Your task to perform on an android device: Search for the best websites on the internet Image 0: 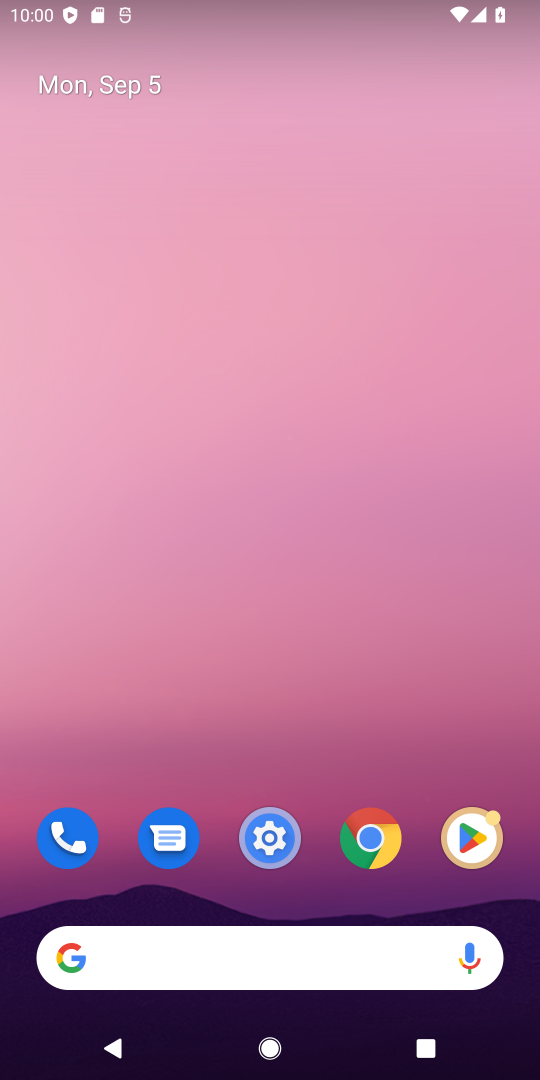
Step 0: click (347, 974)
Your task to perform on an android device: Search for the best websites on the internet Image 1: 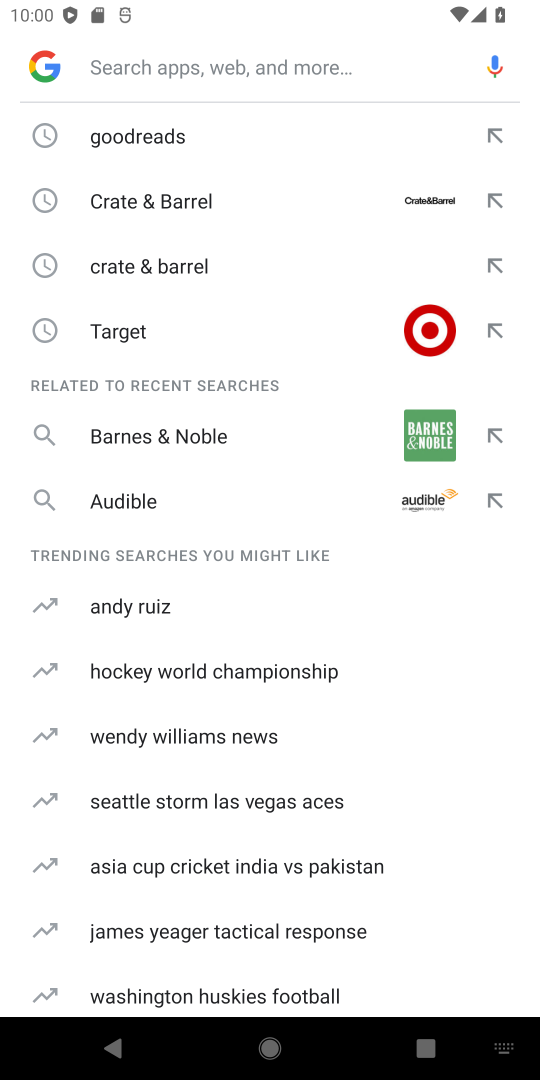
Step 1: type "best websites on the internet"
Your task to perform on an android device: Search for the best websites on the internet Image 2: 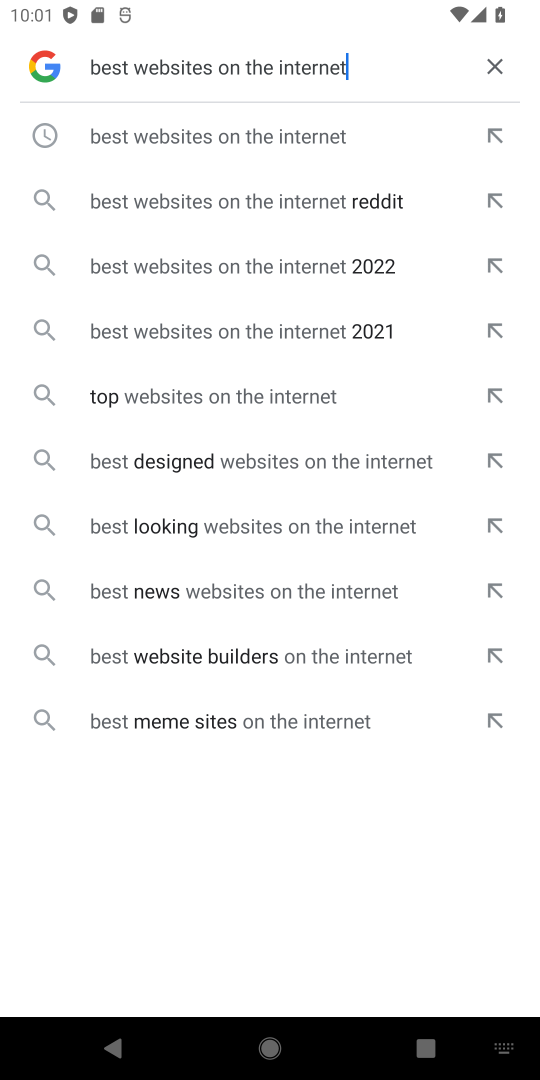
Step 2: click (241, 129)
Your task to perform on an android device: Search for the best websites on the internet Image 3: 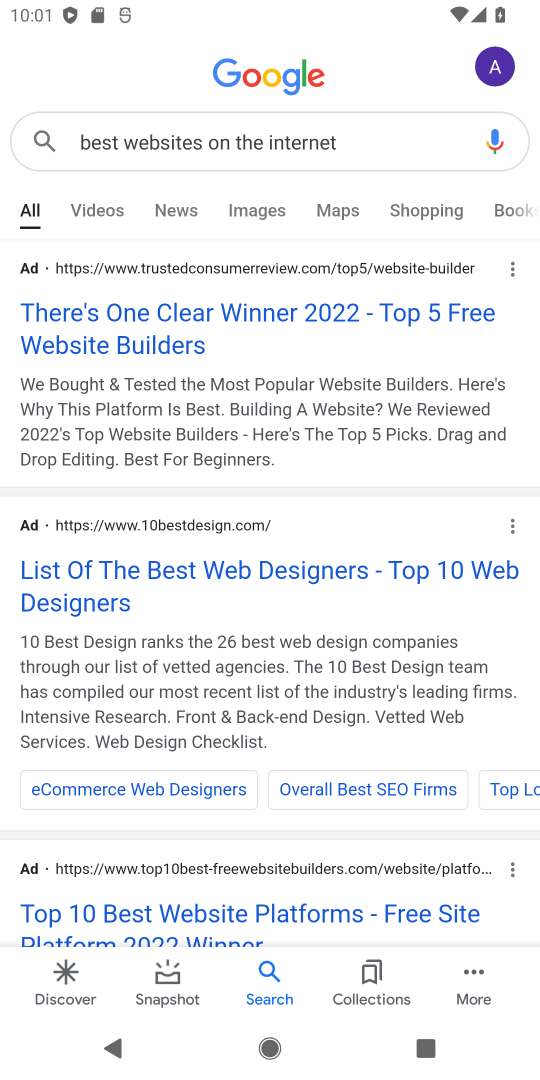
Step 3: drag from (286, 743) to (260, 370)
Your task to perform on an android device: Search for the best websites on the internet Image 4: 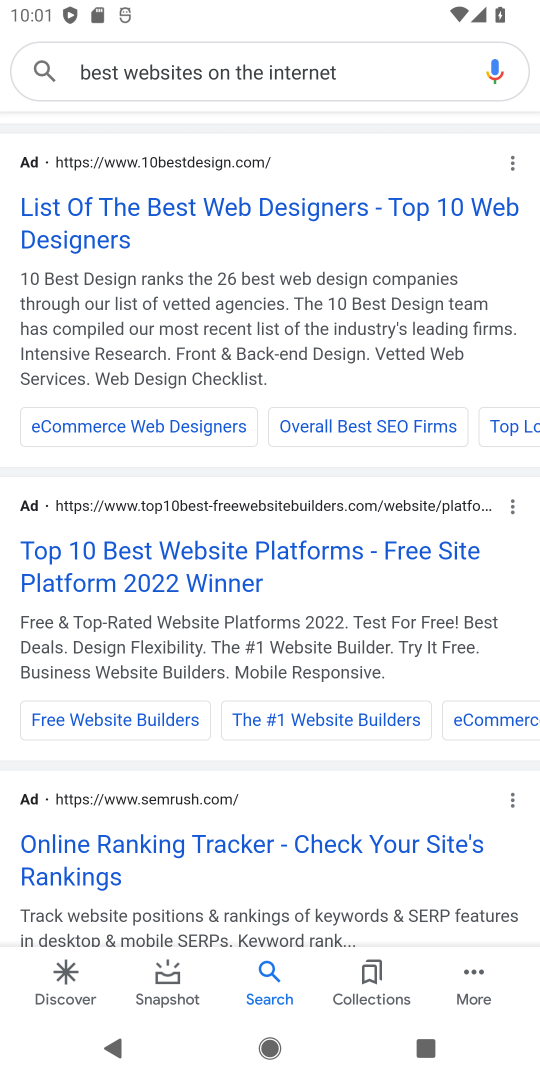
Step 4: drag from (334, 692) to (308, 397)
Your task to perform on an android device: Search for the best websites on the internet Image 5: 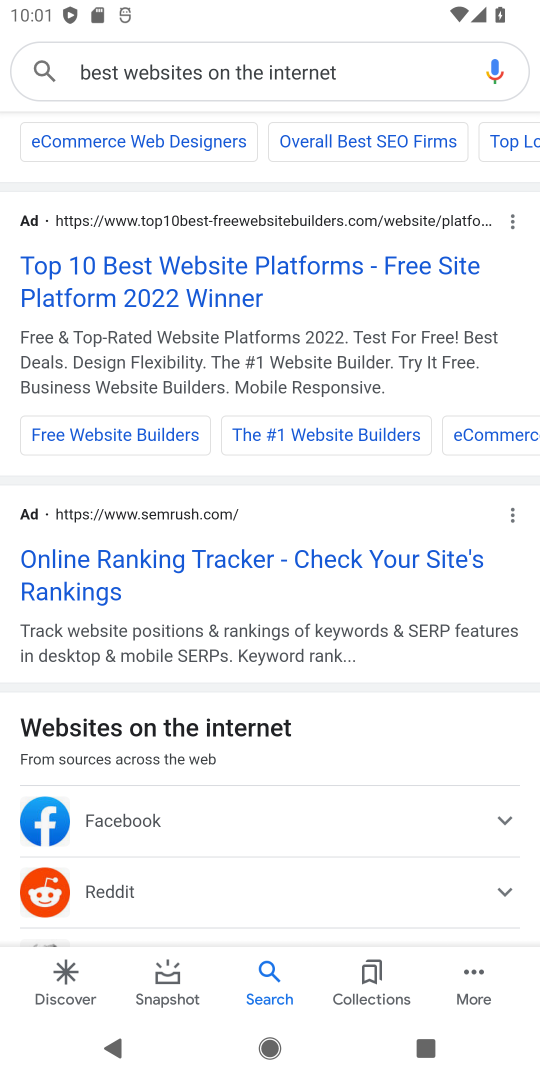
Step 5: drag from (293, 760) to (299, 354)
Your task to perform on an android device: Search for the best websites on the internet Image 6: 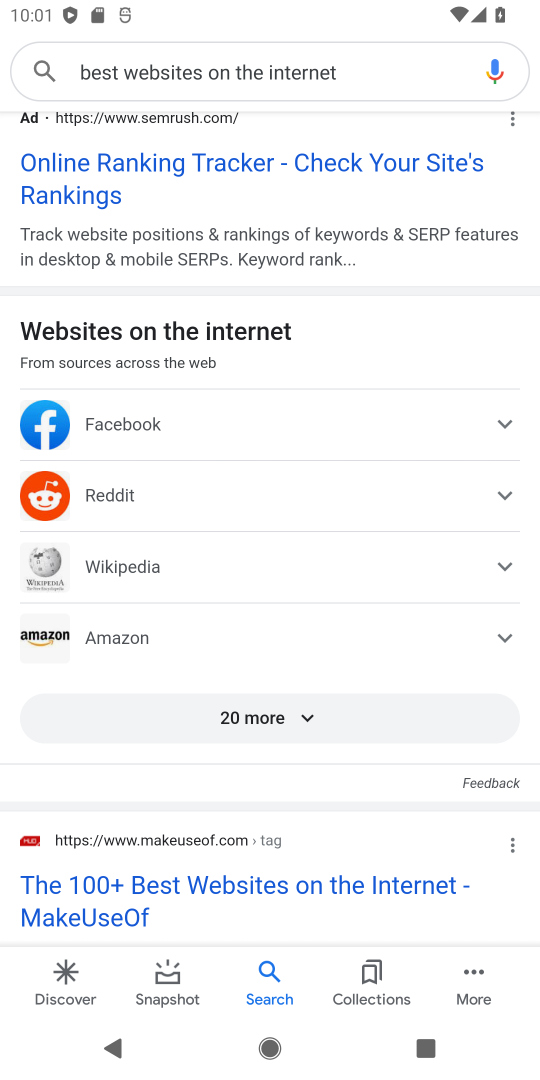
Step 6: click (316, 696)
Your task to perform on an android device: Search for the best websites on the internet Image 7: 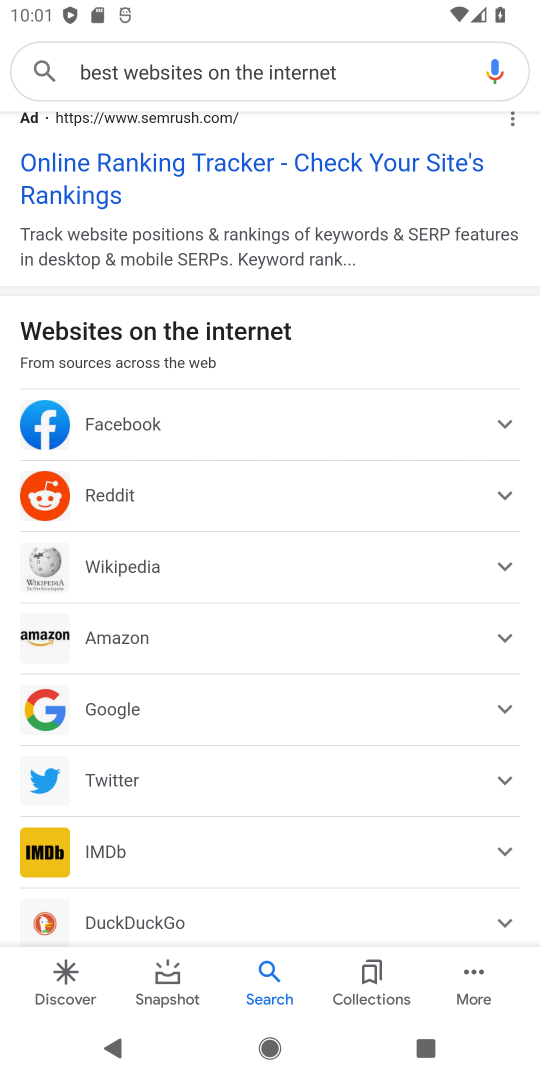
Step 7: task complete